Your task to perform on an android device: turn off data saver in the chrome app Image 0: 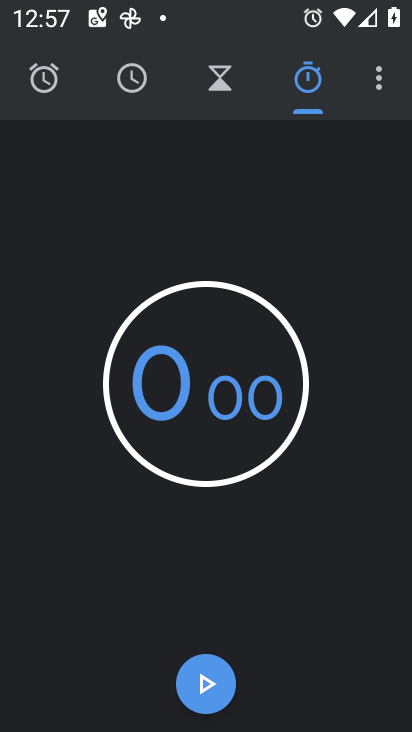
Step 0: press home button
Your task to perform on an android device: turn off data saver in the chrome app Image 1: 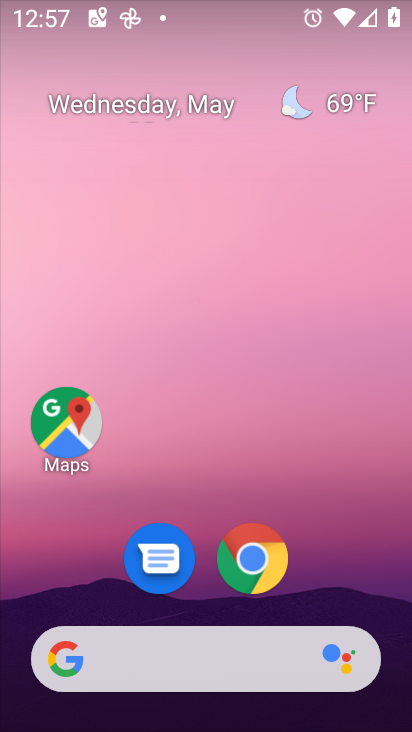
Step 1: drag from (392, 651) to (359, 0)
Your task to perform on an android device: turn off data saver in the chrome app Image 2: 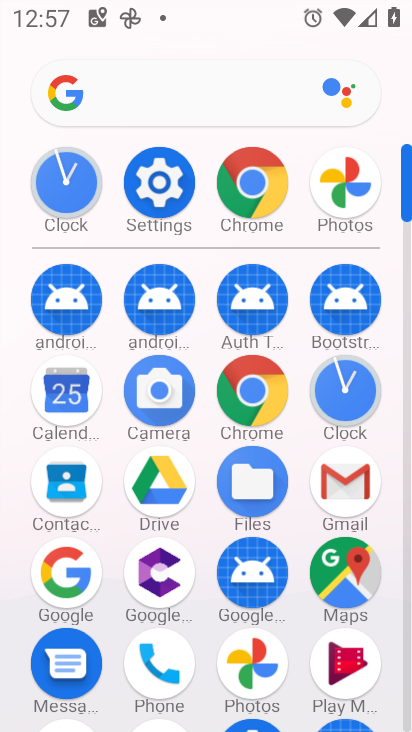
Step 2: click (225, 420)
Your task to perform on an android device: turn off data saver in the chrome app Image 3: 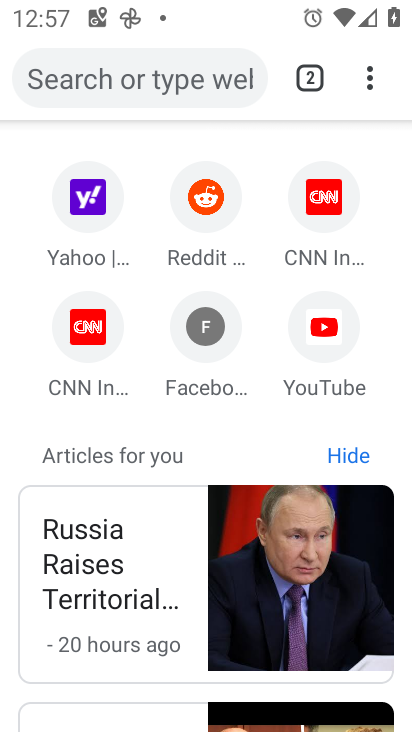
Step 3: click (376, 86)
Your task to perform on an android device: turn off data saver in the chrome app Image 4: 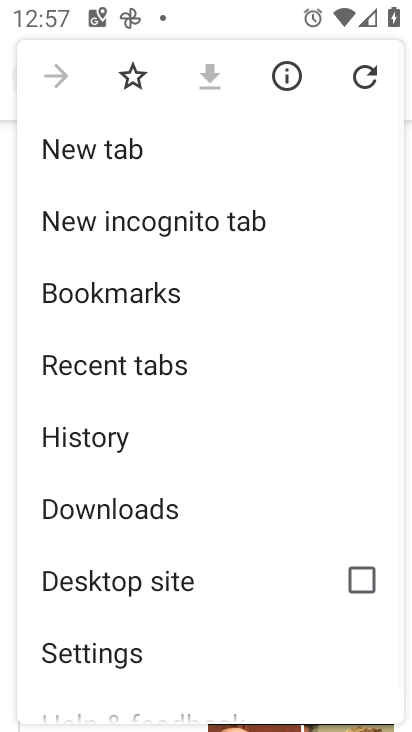
Step 4: click (140, 664)
Your task to perform on an android device: turn off data saver in the chrome app Image 5: 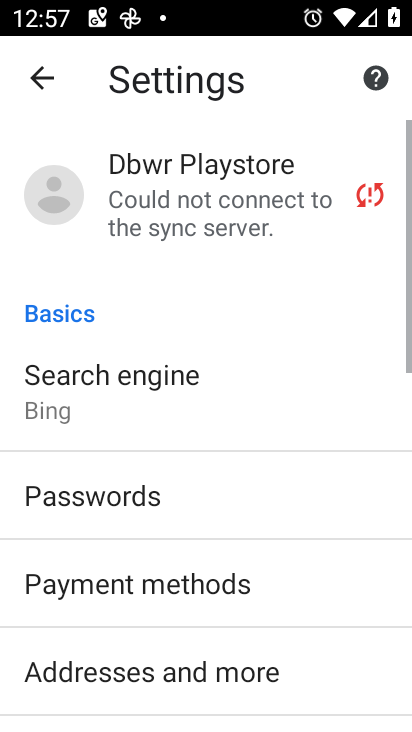
Step 5: drag from (140, 664) to (243, 123)
Your task to perform on an android device: turn off data saver in the chrome app Image 6: 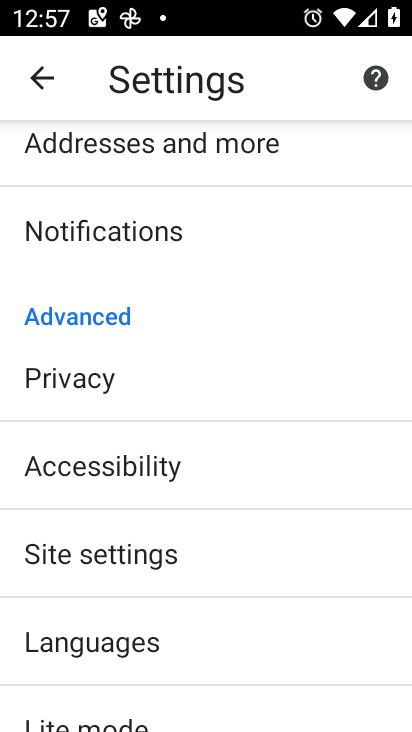
Step 6: drag from (156, 681) to (223, 277)
Your task to perform on an android device: turn off data saver in the chrome app Image 7: 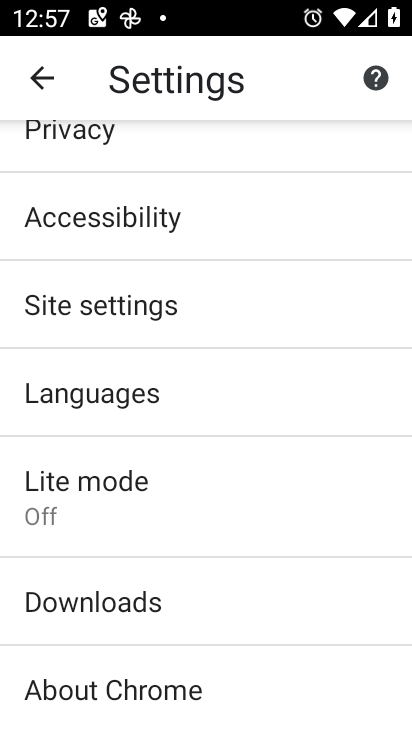
Step 7: click (136, 501)
Your task to perform on an android device: turn off data saver in the chrome app Image 8: 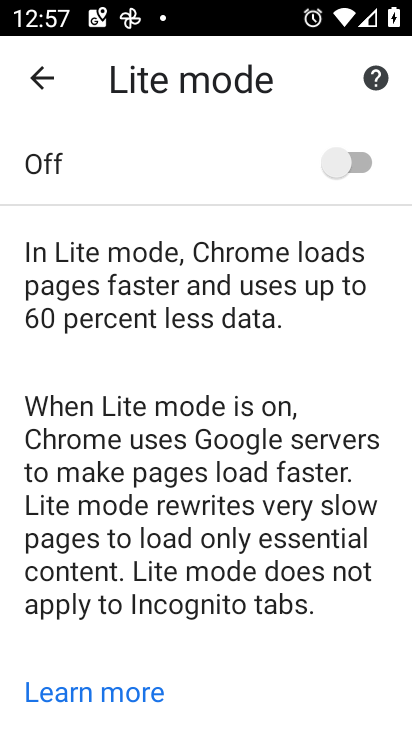
Step 8: task complete